Your task to perform on an android device: clear all cookies in the chrome app Image 0: 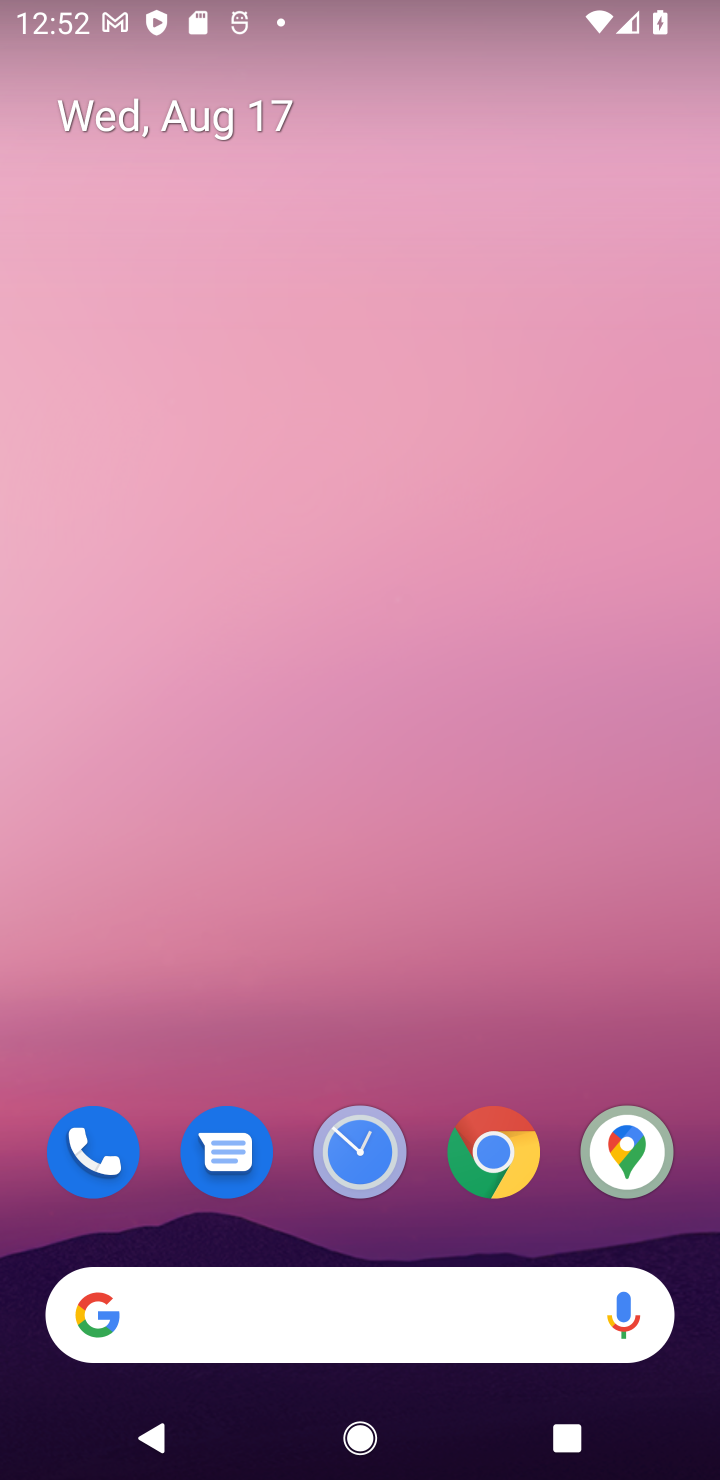
Step 0: drag from (588, 1212) to (290, 10)
Your task to perform on an android device: clear all cookies in the chrome app Image 1: 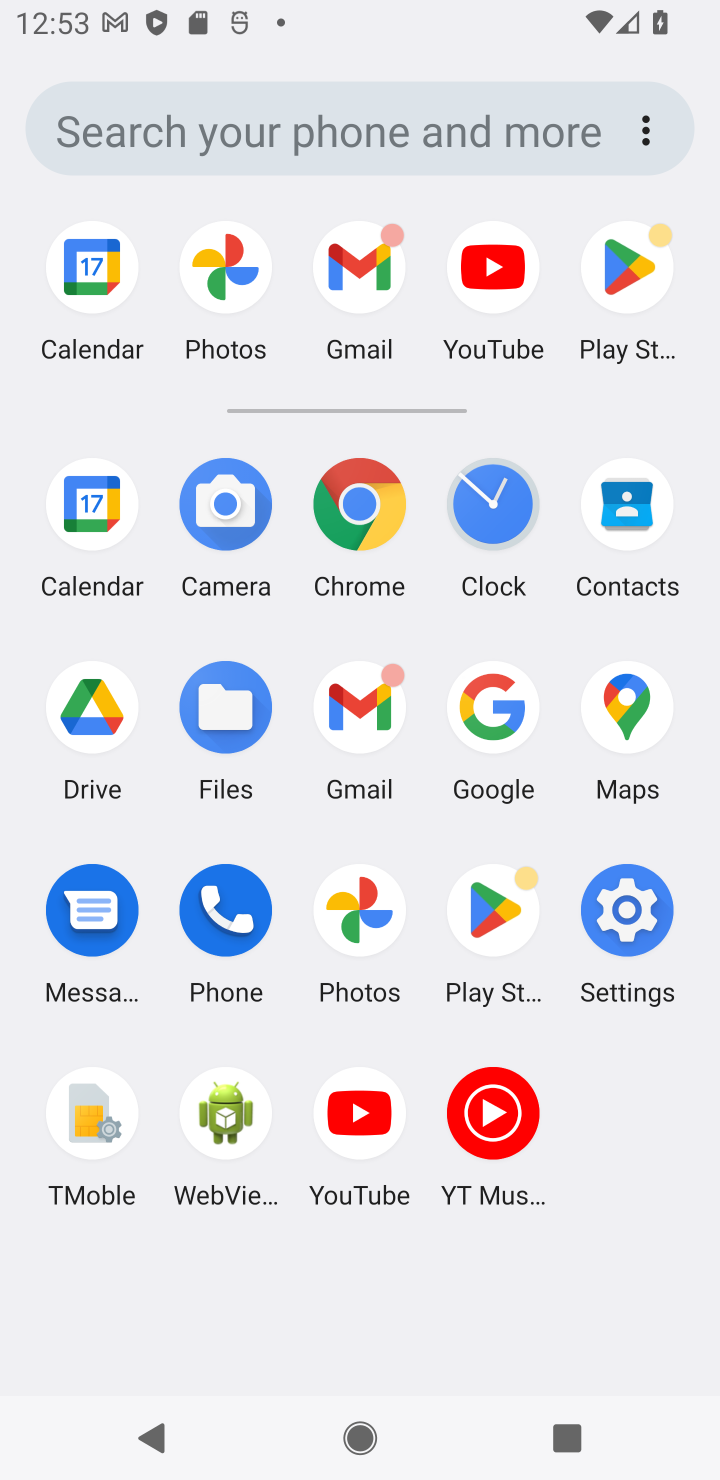
Step 1: click (354, 525)
Your task to perform on an android device: clear all cookies in the chrome app Image 2: 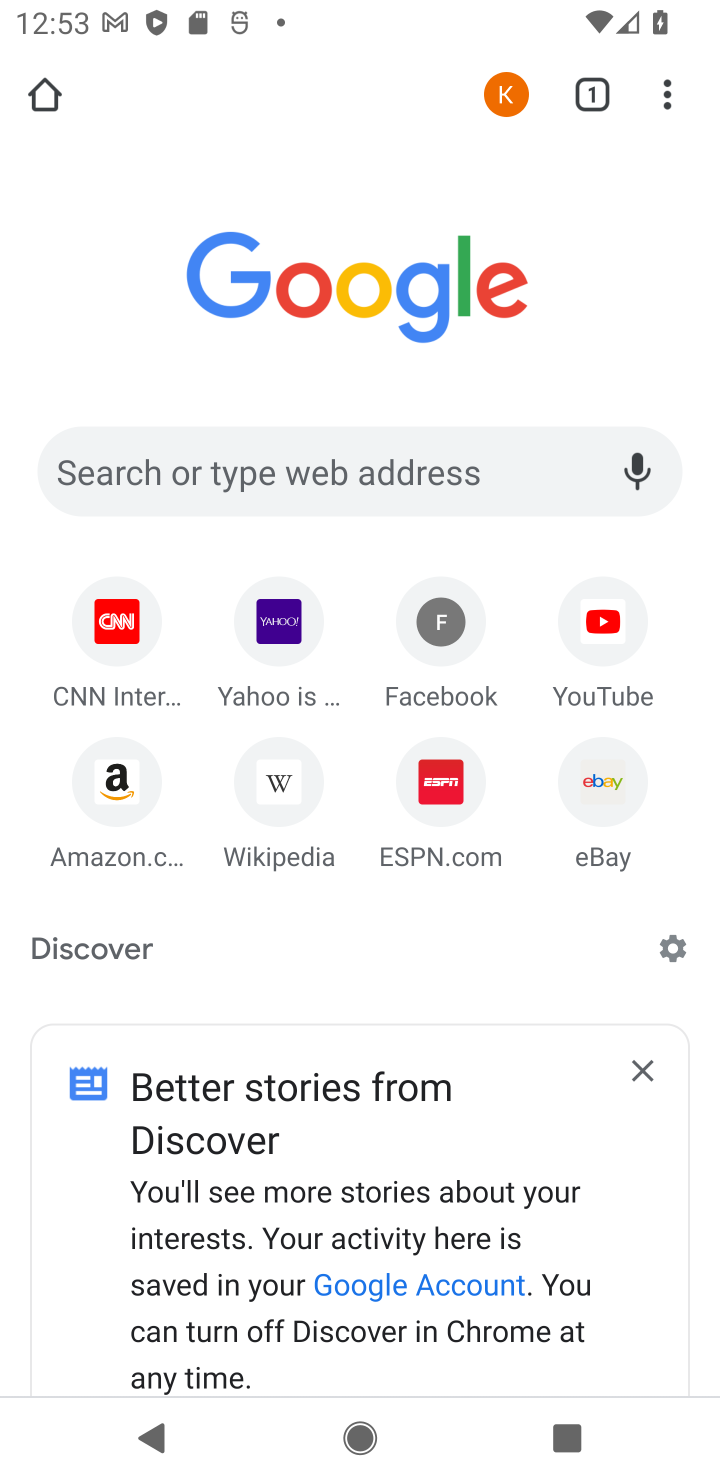
Step 2: click (680, 79)
Your task to perform on an android device: clear all cookies in the chrome app Image 3: 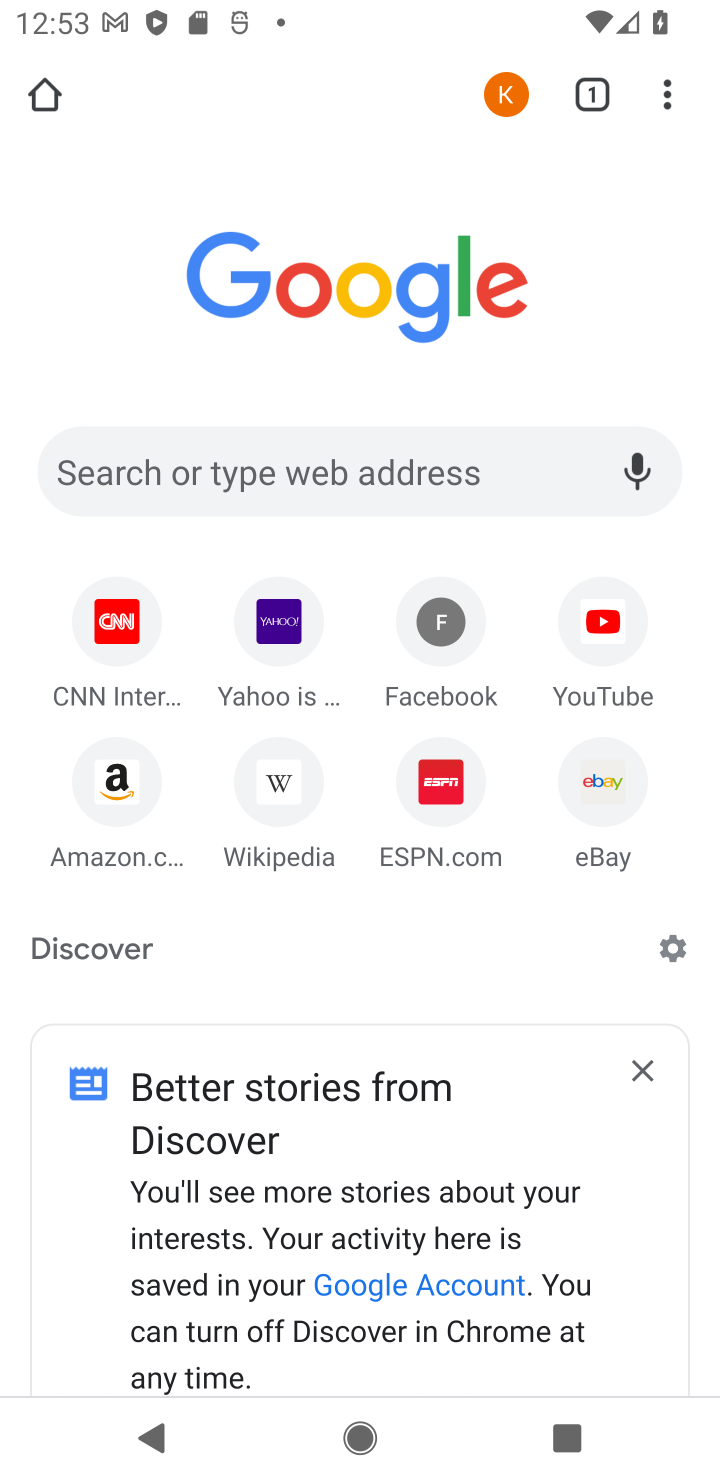
Step 3: click (674, 84)
Your task to perform on an android device: clear all cookies in the chrome app Image 4: 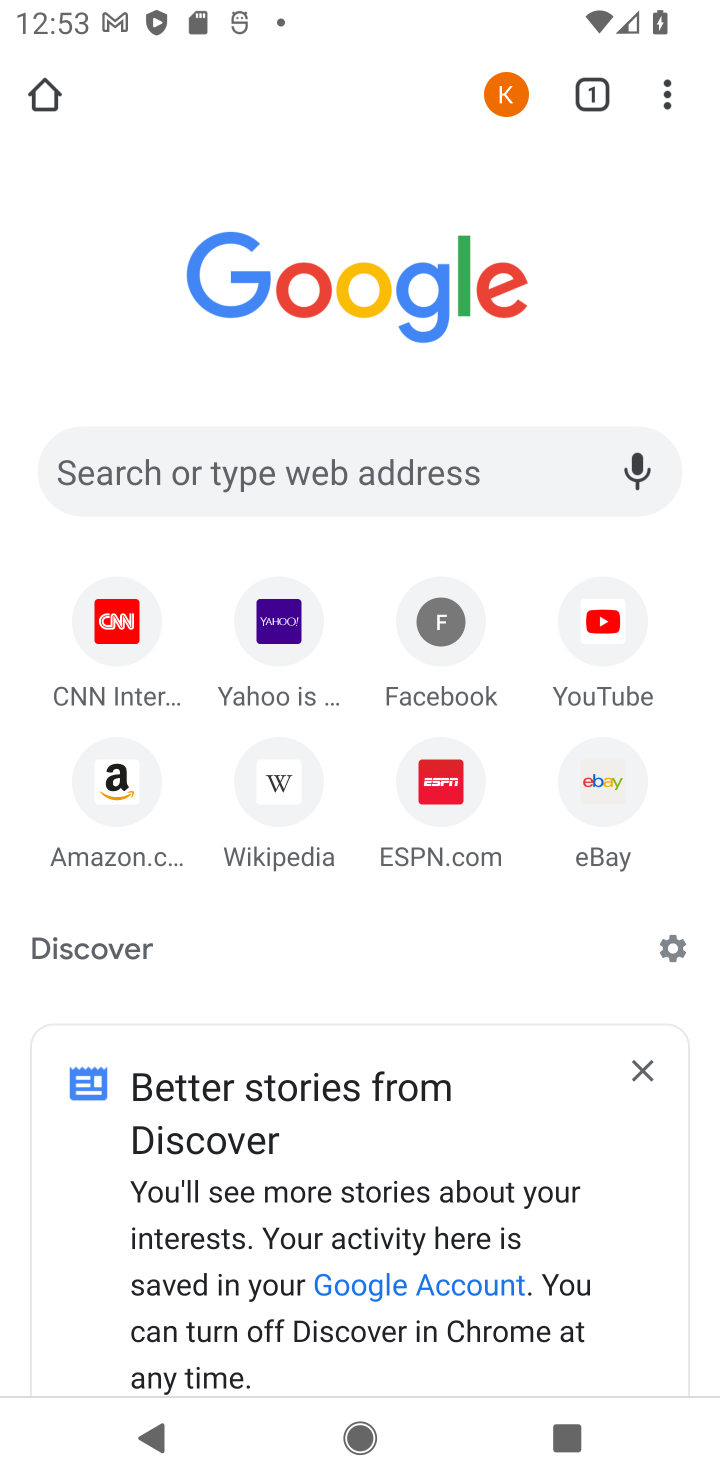
Step 4: click (674, 84)
Your task to perform on an android device: clear all cookies in the chrome app Image 5: 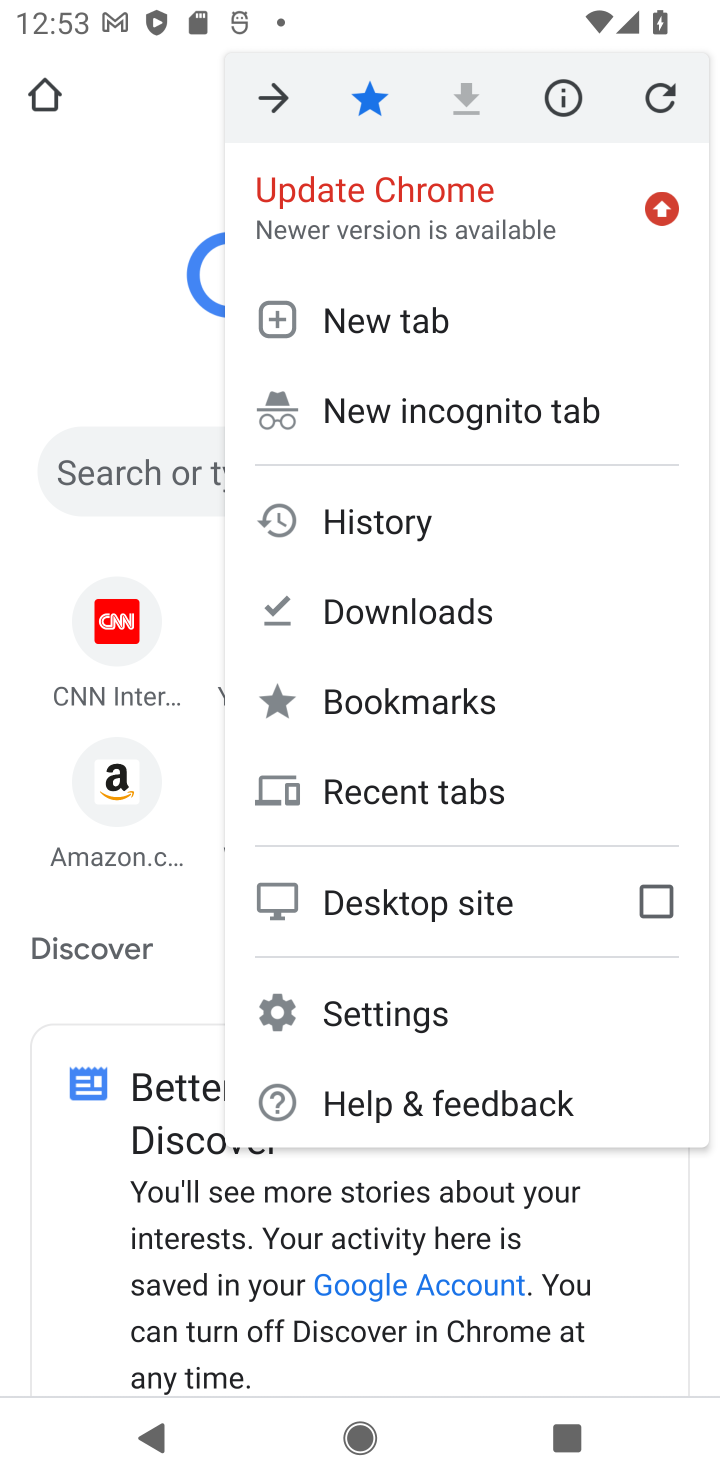
Step 5: click (406, 521)
Your task to perform on an android device: clear all cookies in the chrome app Image 6: 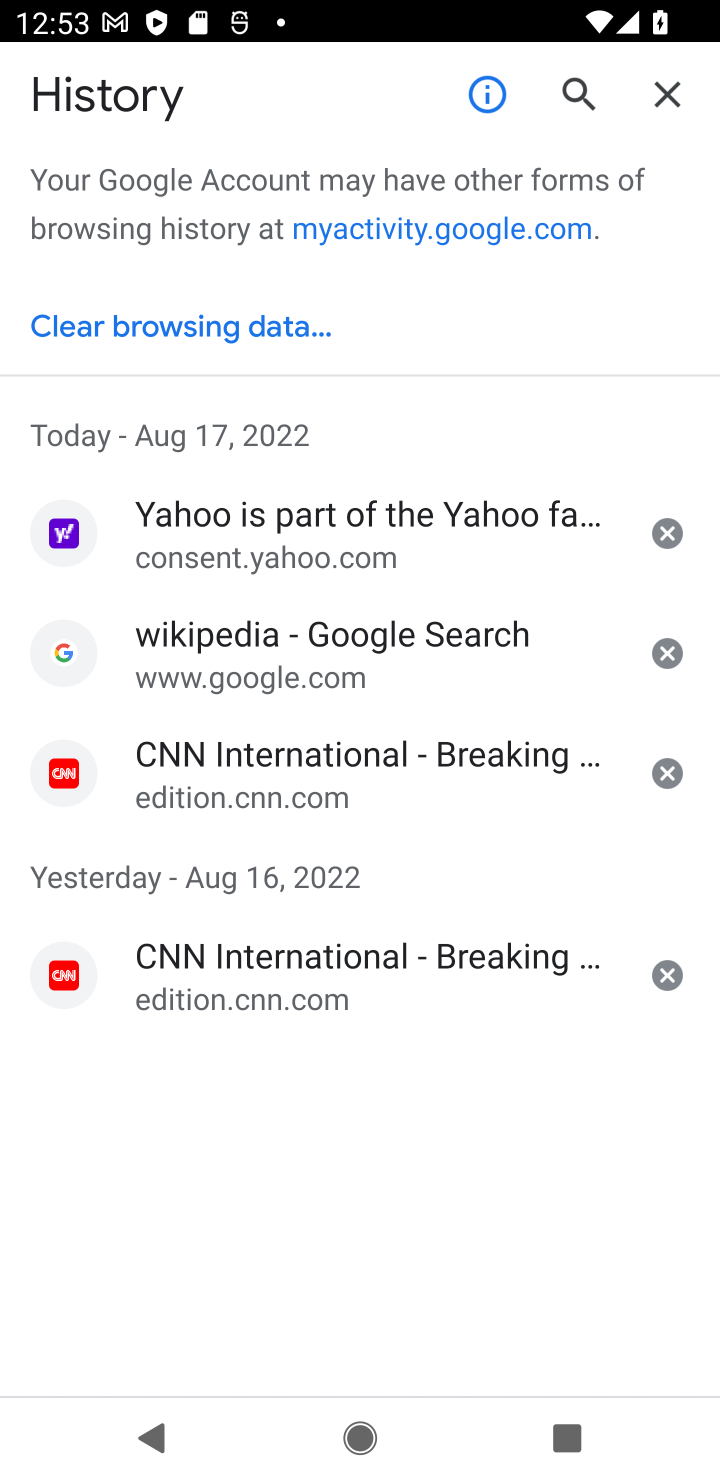
Step 6: click (212, 340)
Your task to perform on an android device: clear all cookies in the chrome app Image 7: 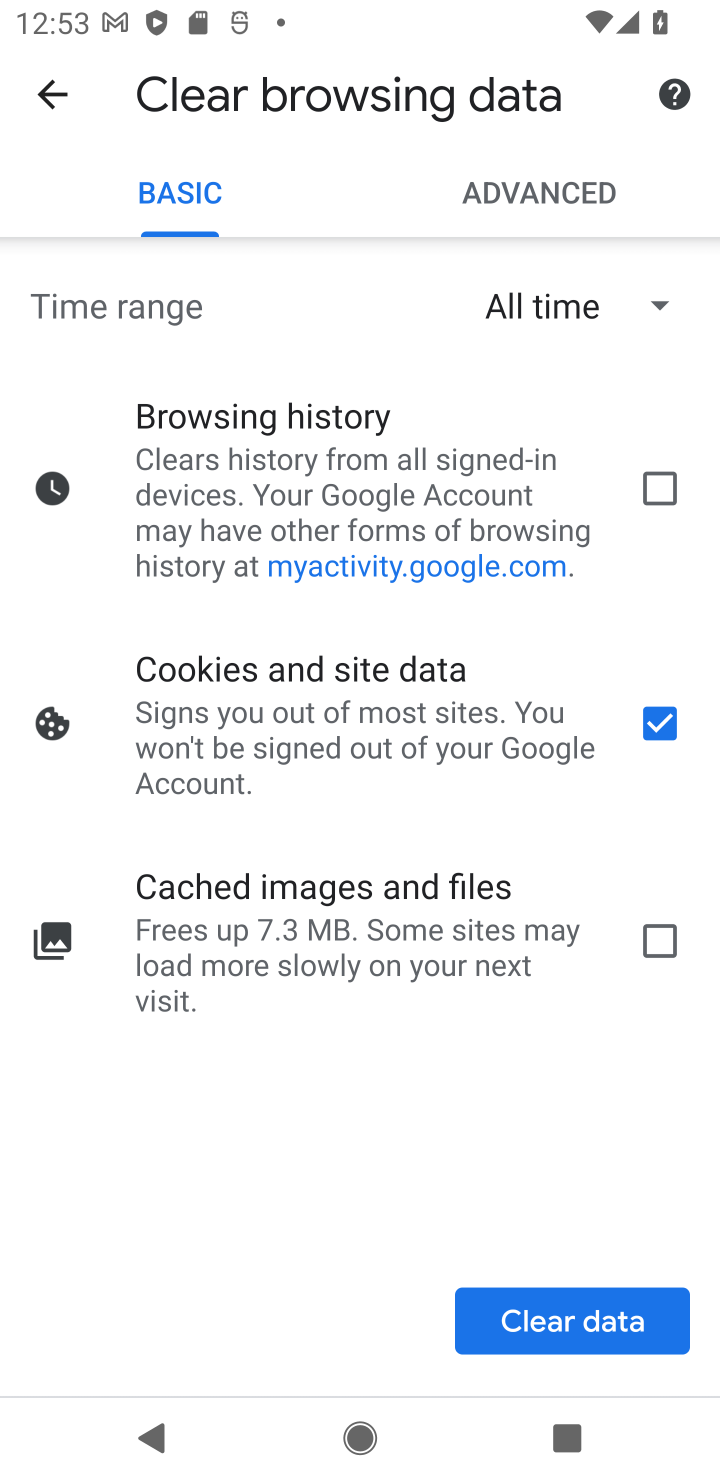
Step 7: click (662, 497)
Your task to perform on an android device: clear all cookies in the chrome app Image 8: 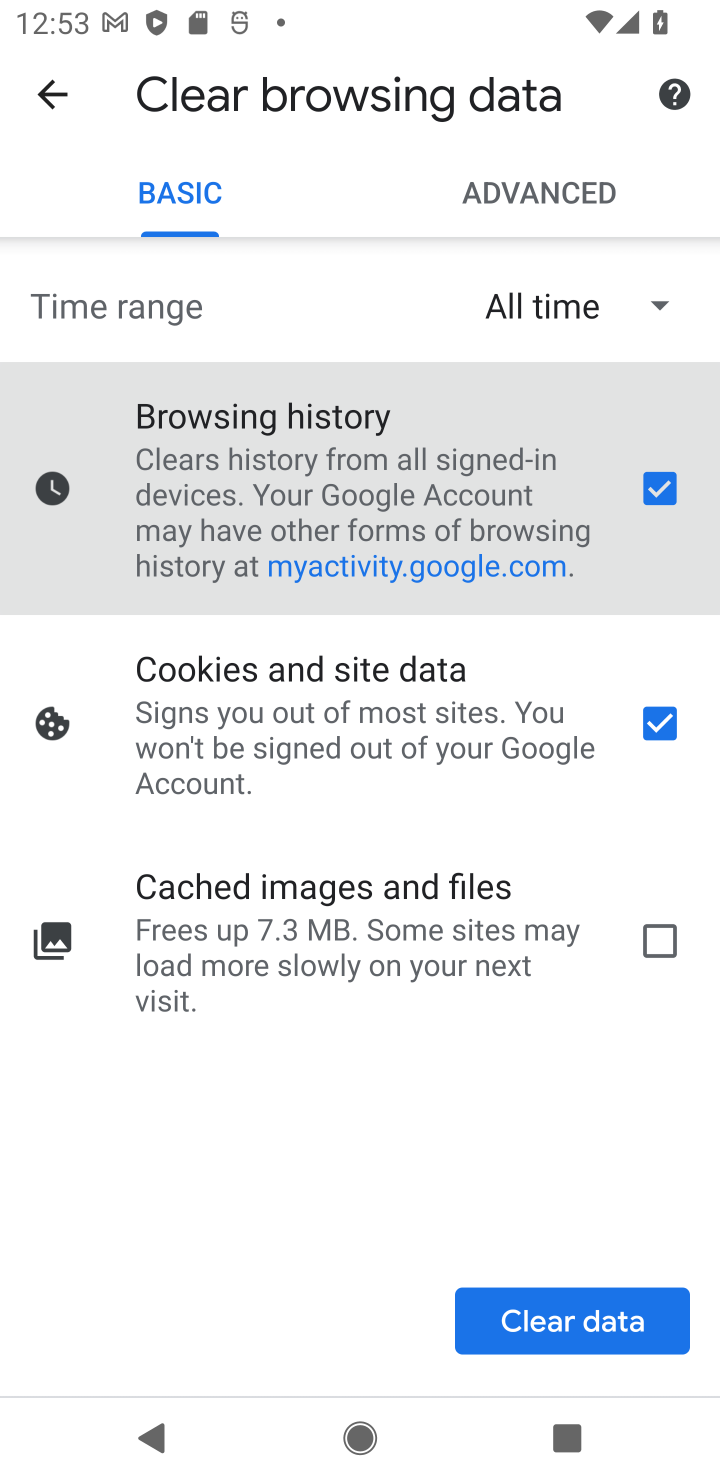
Step 8: click (532, 1317)
Your task to perform on an android device: clear all cookies in the chrome app Image 9: 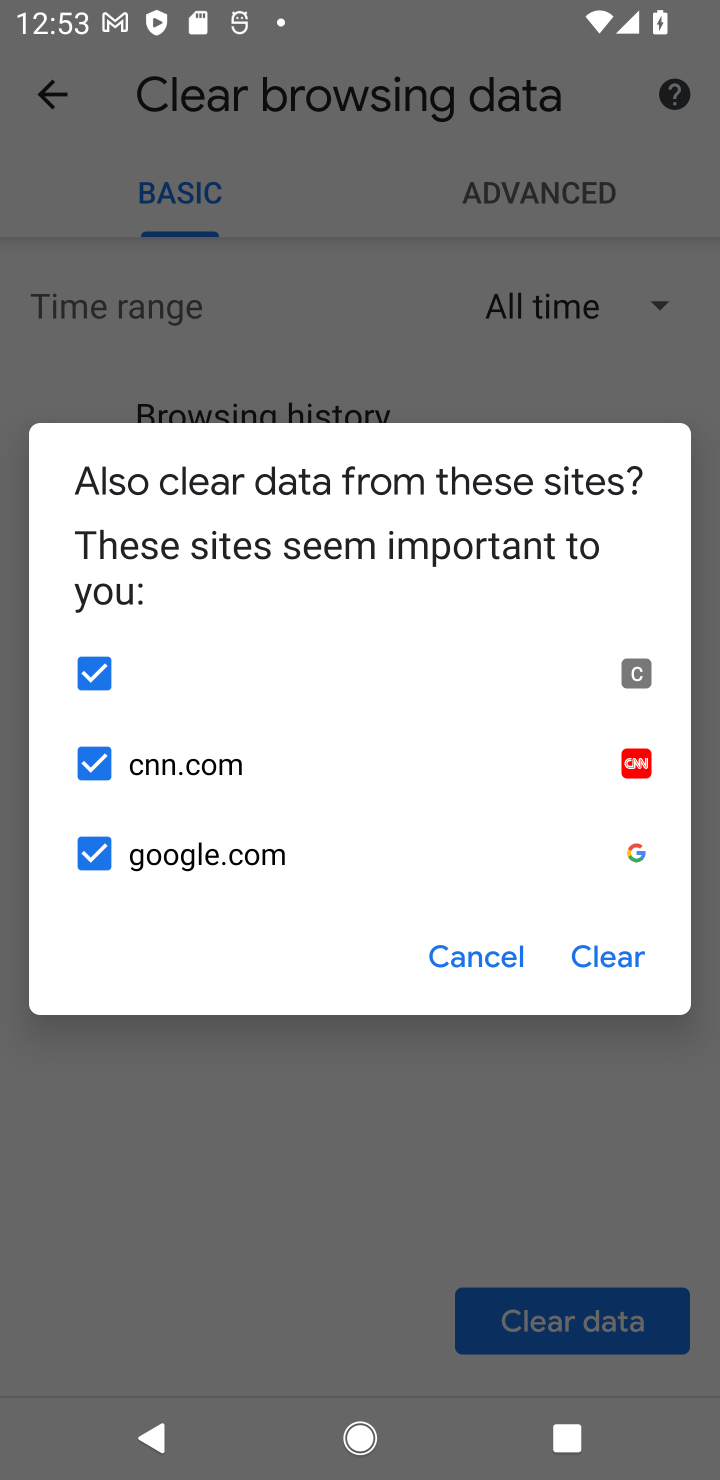
Step 9: click (614, 974)
Your task to perform on an android device: clear all cookies in the chrome app Image 10: 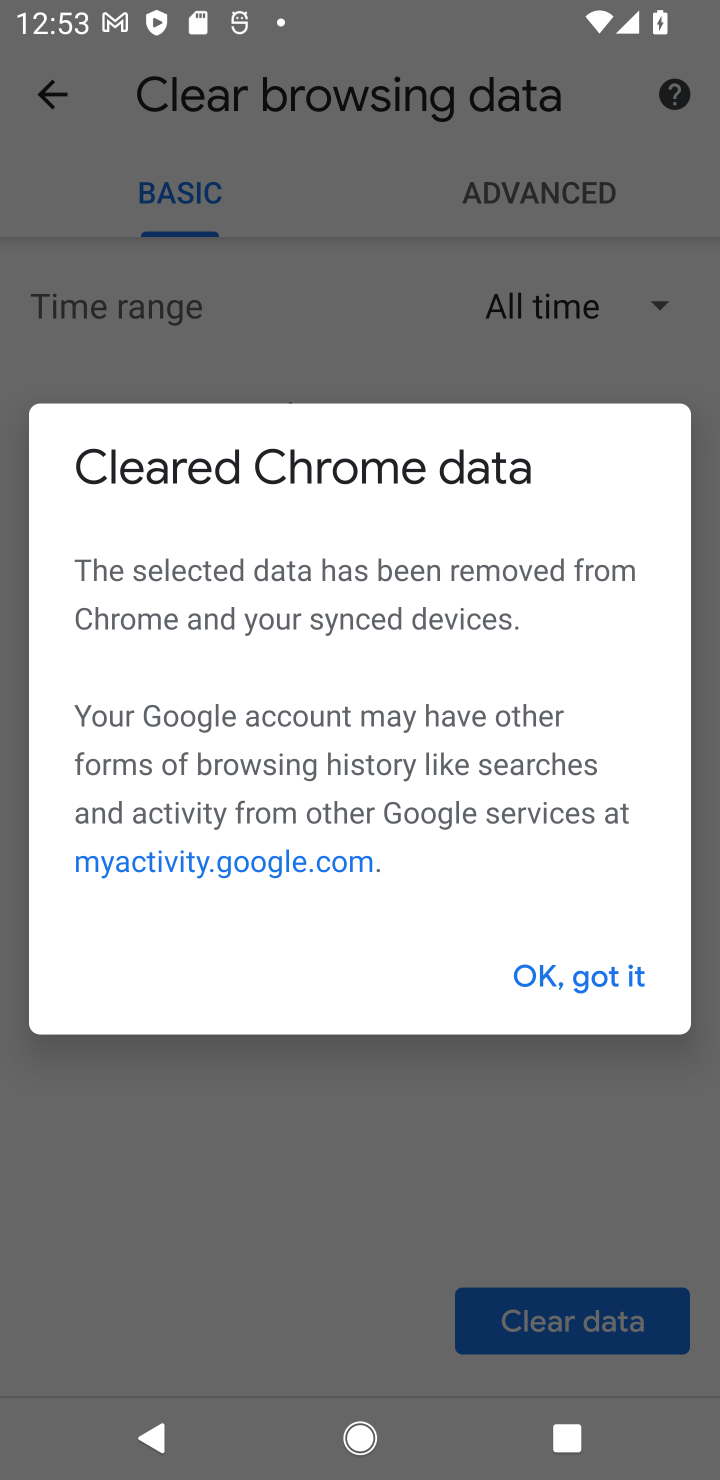
Step 10: click (599, 984)
Your task to perform on an android device: clear all cookies in the chrome app Image 11: 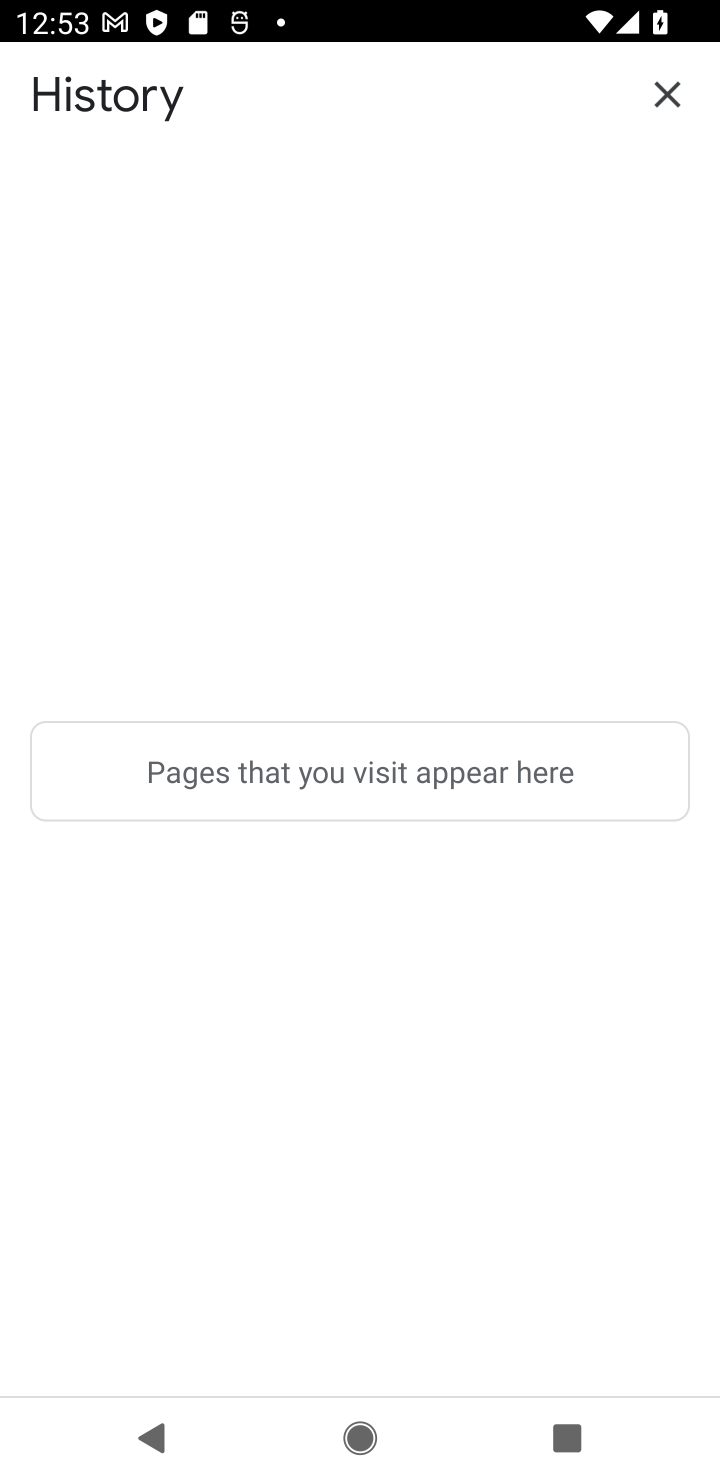
Step 11: task complete